Your task to perform on an android device: show emergency info Image 0: 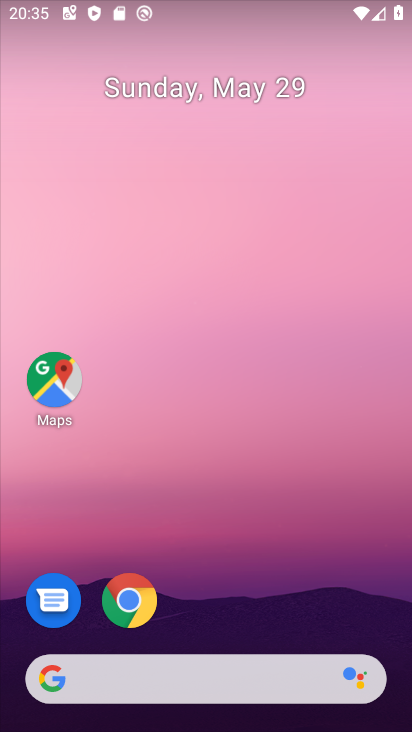
Step 0: drag from (350, 602) to (337, 154)
Your task to perform on an android device: show emergency info Image 1: 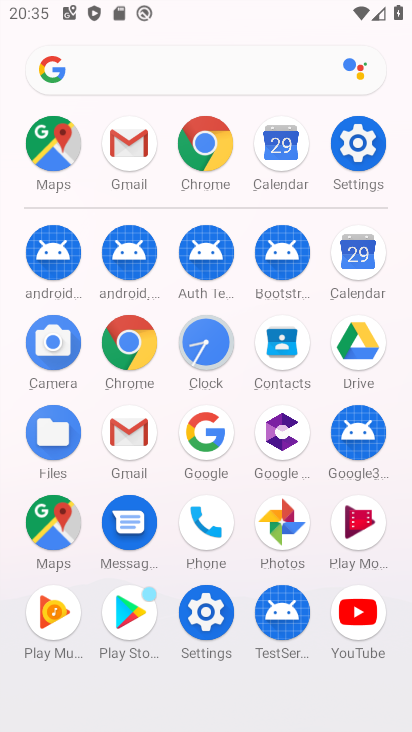
Step 1: click (386, 146)
Your task to perform on an android device: show emergency info Image 2: 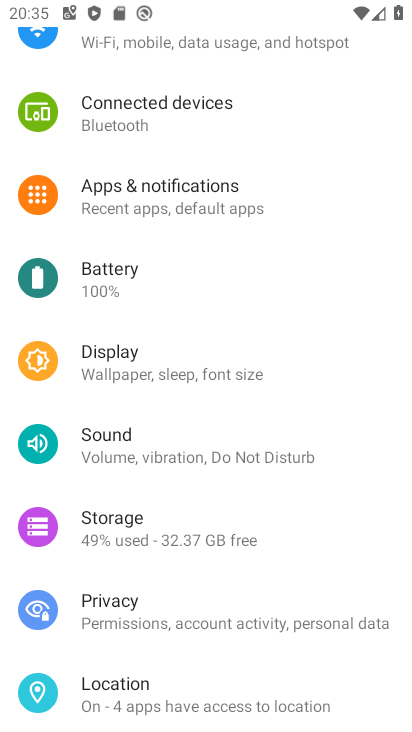
Step 2: drag from (275, 688) to (306, 218)
Your task to perform on an android device: show emergency info Image 3: 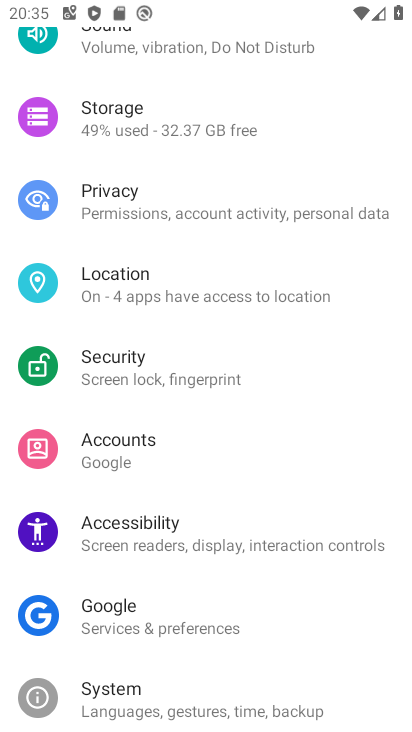
Step 3: drag from (286, 622) to (348, 139)
Your task to perform on an android device: show emergency info Image 4: 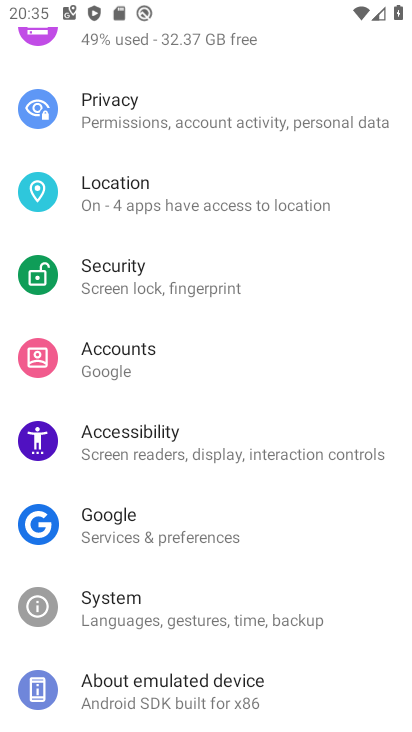
Step 4: click (215, 681)
Your task to perform on an android device: show emergency info Image 5: 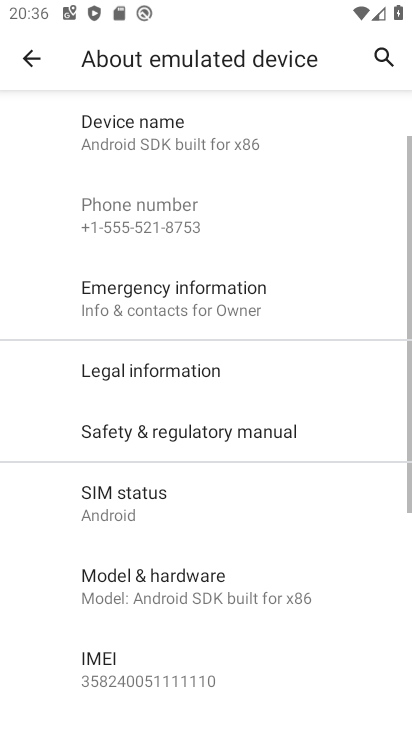
Step 5: click (262, 294)
Your task to perform on an android device: show emergency info Image 6: 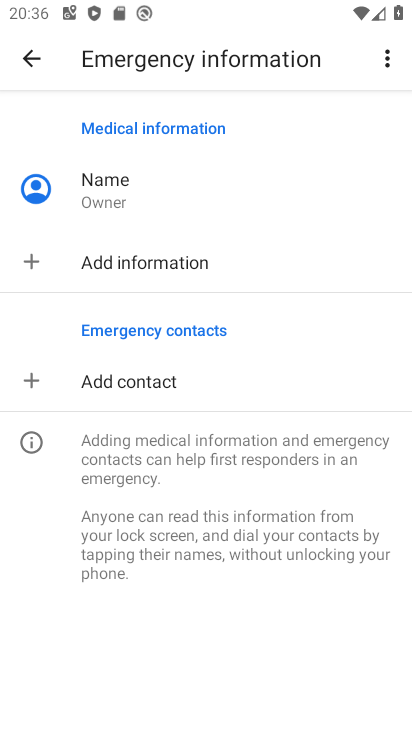
Step 6: task complete